Your task to perform on an android device: Empty the shopping cart on bestbuy. Add "corsair k70" to the cart on bestbuy Image 0: 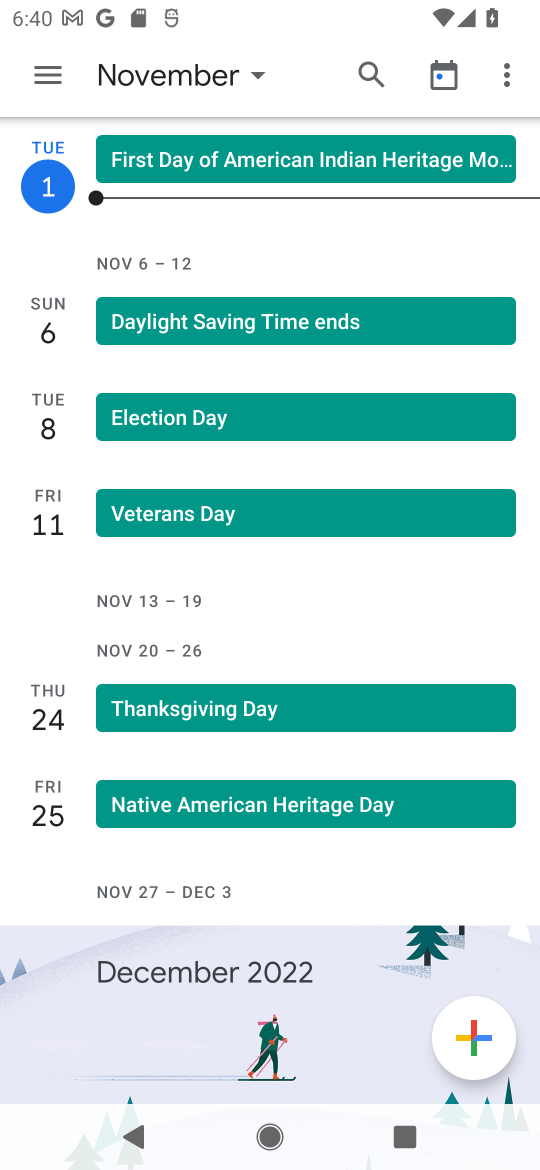
Step 0: press home button
Your task to perform on an android device: Empty the shopping cart on bestbuy. Add "corsair k70" to the cart on bestbuy Image 1: 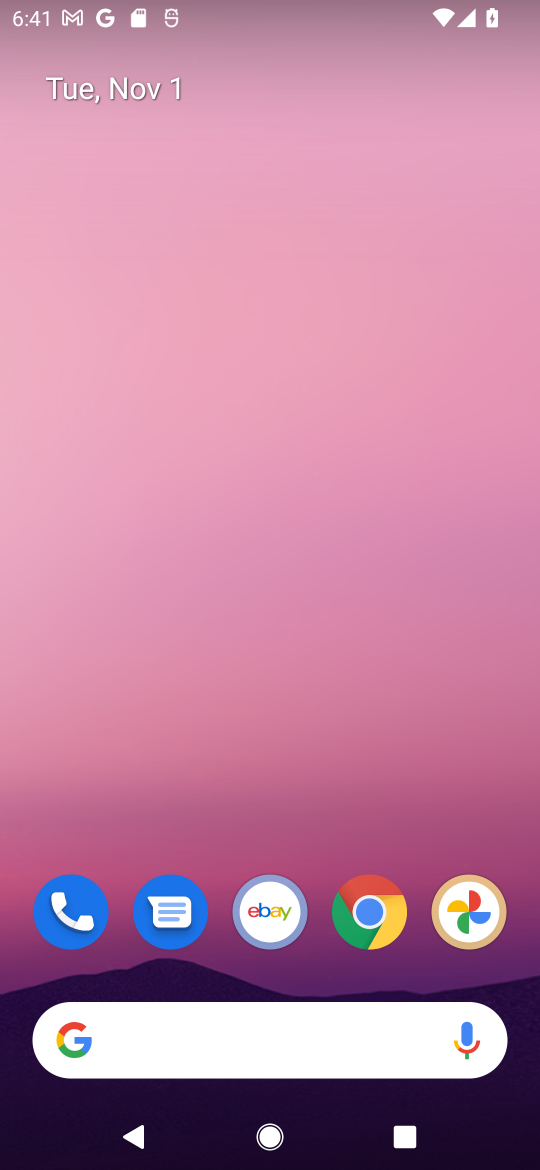
Step 1: click (58, 1041)
Your task to perform on an android device: Empty the shopping cart on bestbuy. Add "corsair k70" to the cart on bestbuy Image 2: 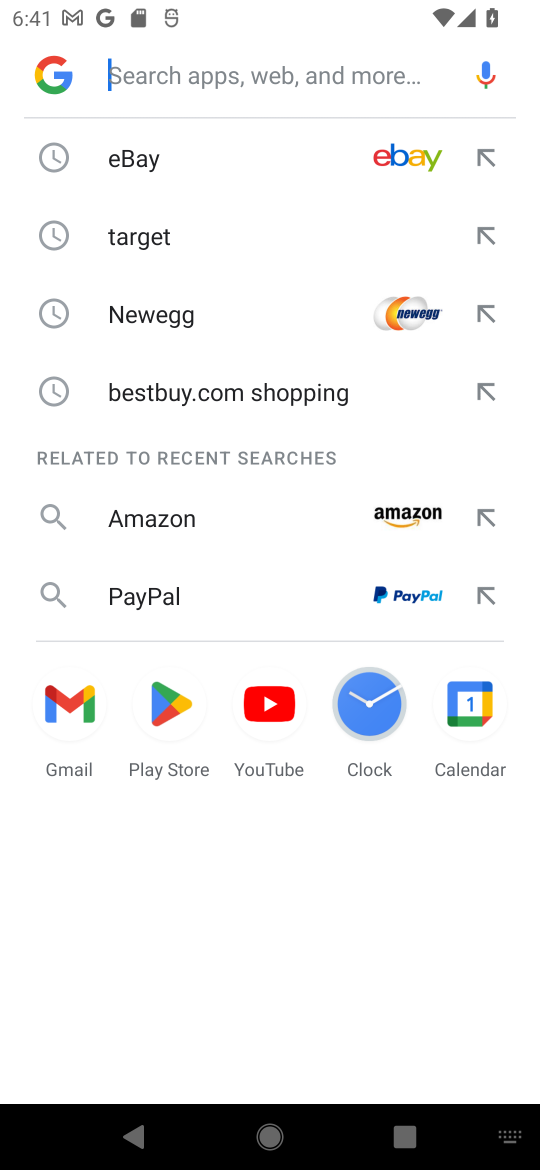
Step 2: click (303, 77)
Your task to perform on an android device: Empty the shopping cart on bestbuy. Add "corsair k70" to the cart on bestbuy Image 3: 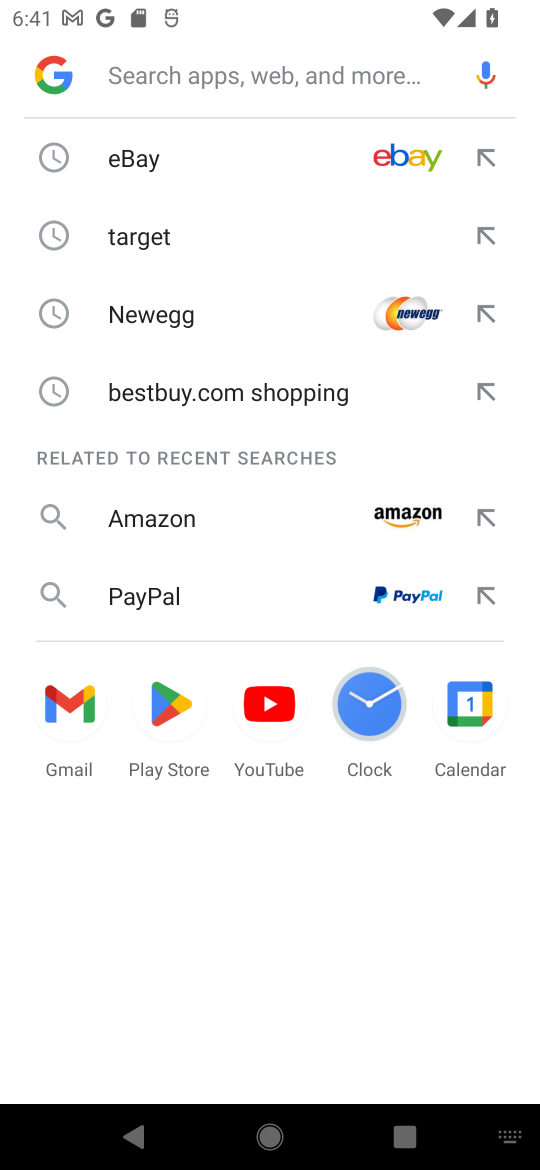
Step 3: type "bestbuy.com"
Your task to perform on an android device: Empty the shopping cart on bestbuy. Add "corsair k70" to the cart on bestbuy Image 4: 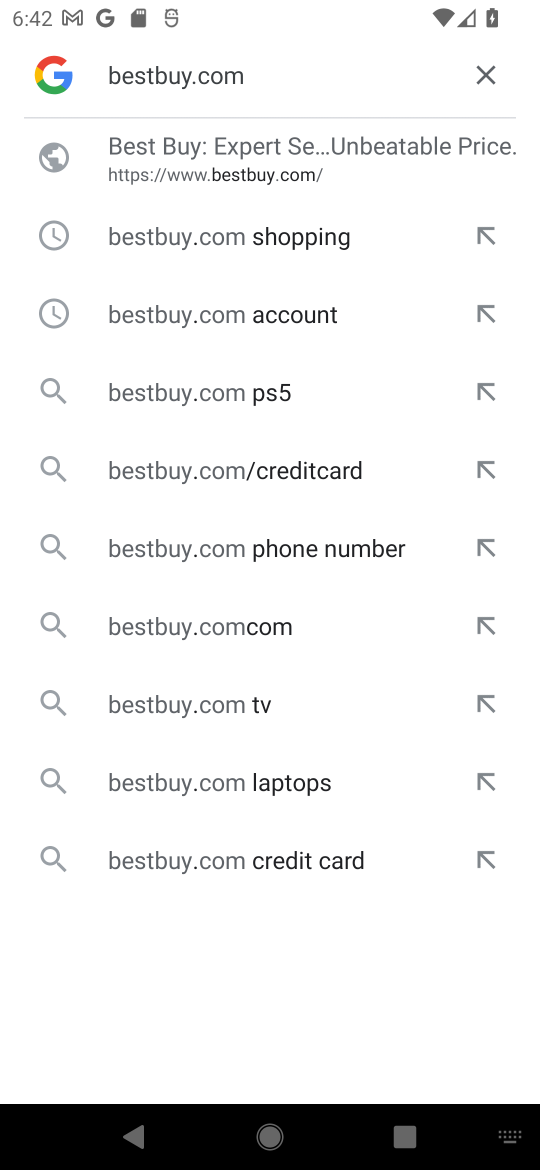
Step 4: click (325, 152)
Your task to perform on an android device: Empty the shopping cart on bestbuy. Add "corsair k70" to the cart on bestbuy Image 5: 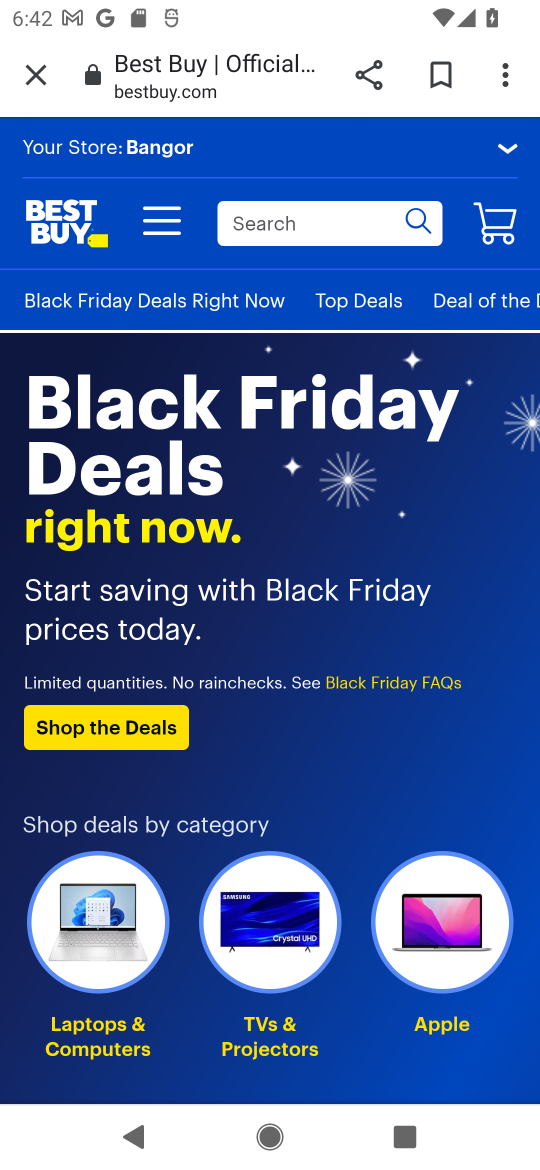
Step 5: click (324, 220)
Your task to perform on an android device: Empty the shopping cart on bestbuy. Add "corsair k70" to the cart on bestbuy Image 6: 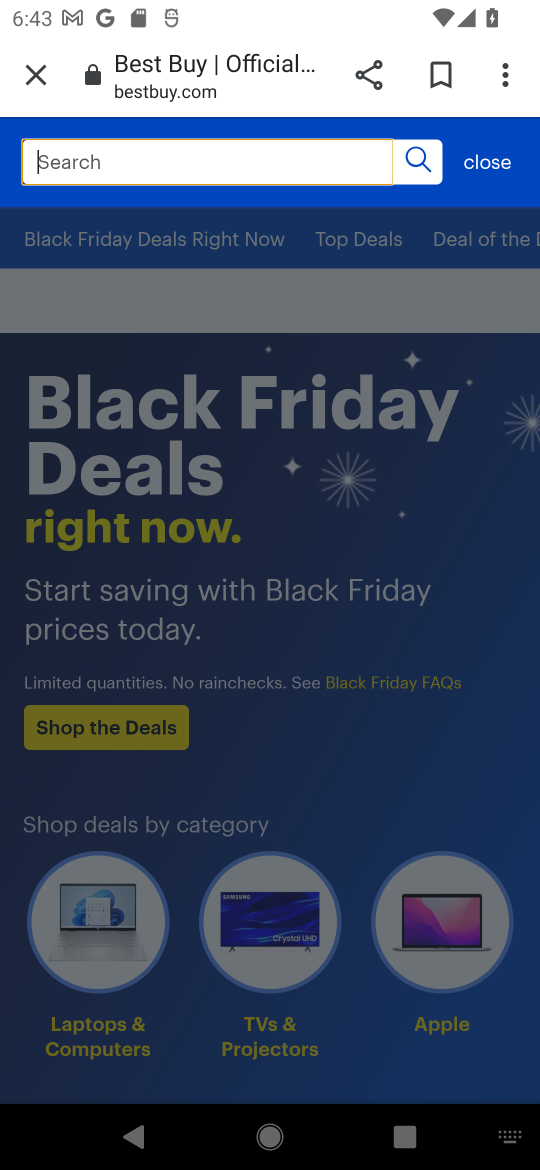
Step 6: click (211, 147)
Your task to perform on an android device: Empty the shopping cart on bestbuy. Add "corsair k70" to the cart on bestbuy Image 7: 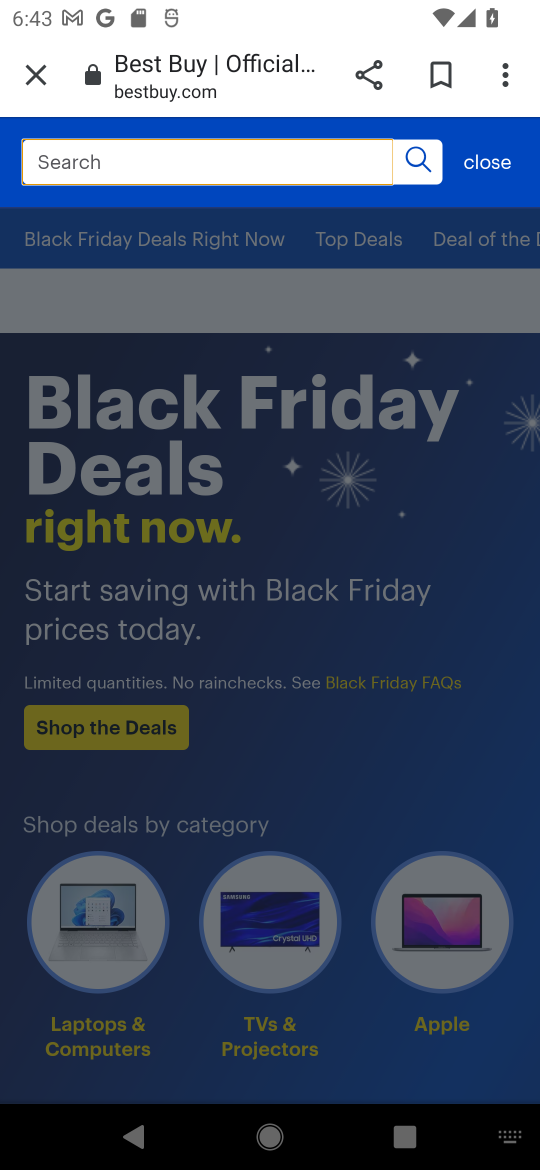
Step 7: type "corsair k70"
Your task to perform on an android device: Empty the shopping cart on bestbuy. Add "corsair k70" to the cart on bestbuy Image 8: 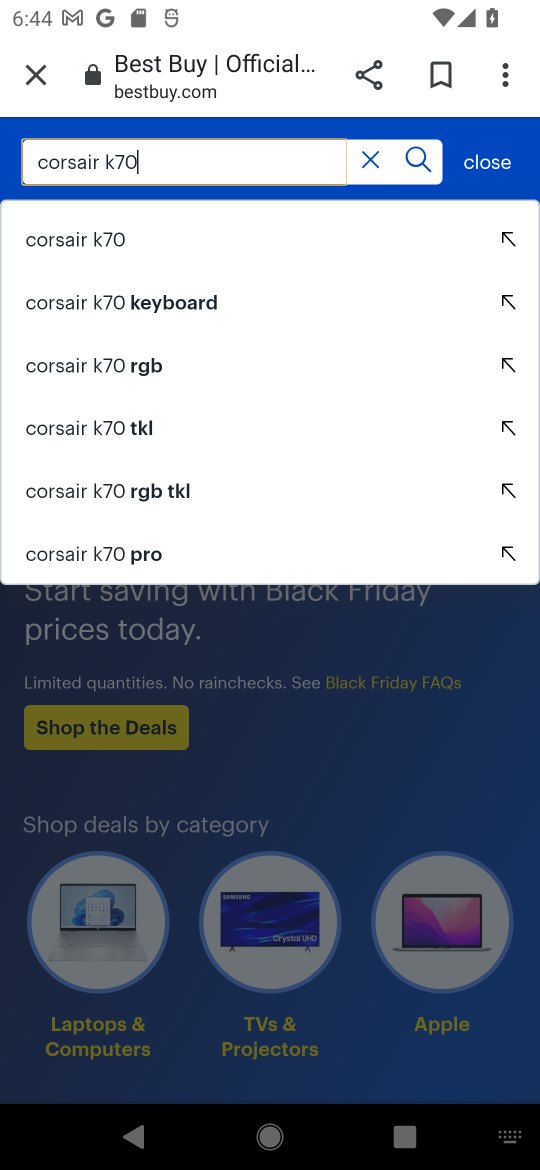
Step 8: click (79, 246)
Your task to perform on an android device: Empty the shopping cart on bestbuy. Add "corsair k70" to the cart on bestbuy Image 9: 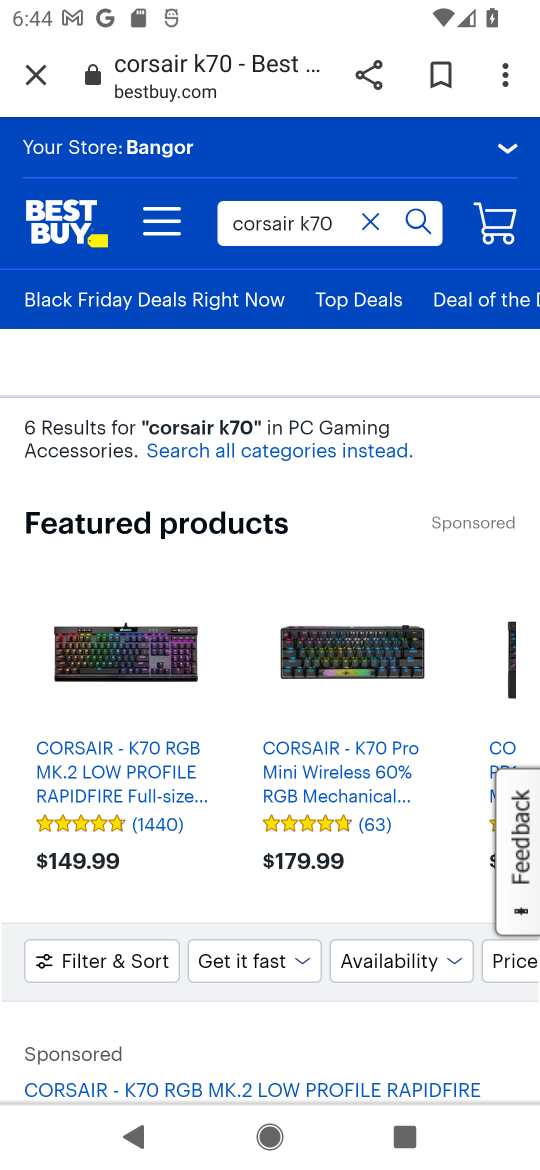
Step 9: drag from (193, 964) to (274, 181)
Your task to perform on an android device: Empty the shopping cart on bestbuy. Add "corsair k70" to the cart on bestbuy Image 10: 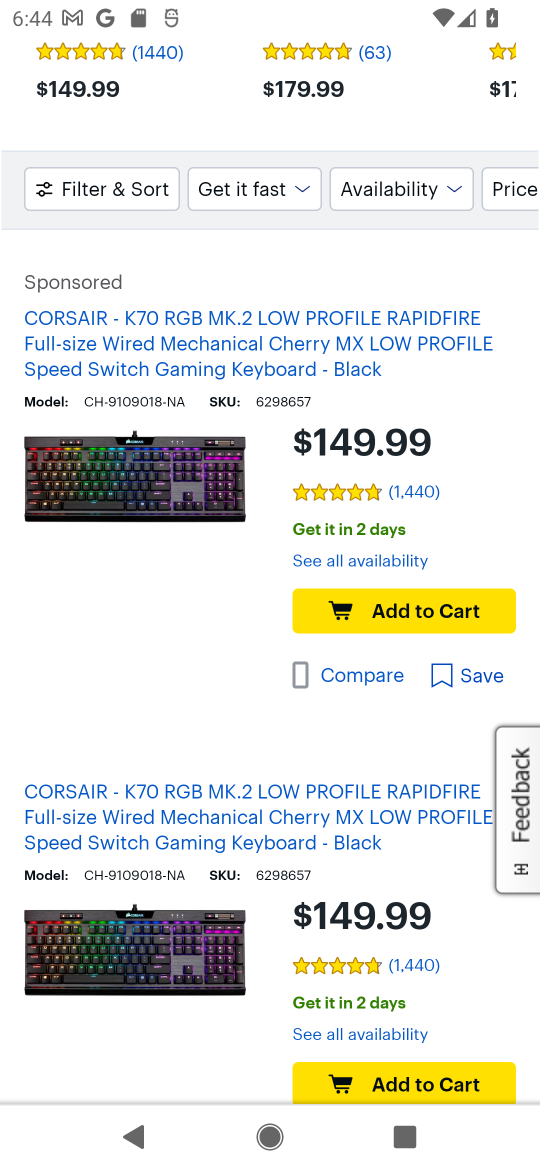
Step 10: click (420, 614)
Your task to perform on an android device: Empty the shopping cart on bestbuy. Add "corsair k70" to the cart on bestbuy Image 11: 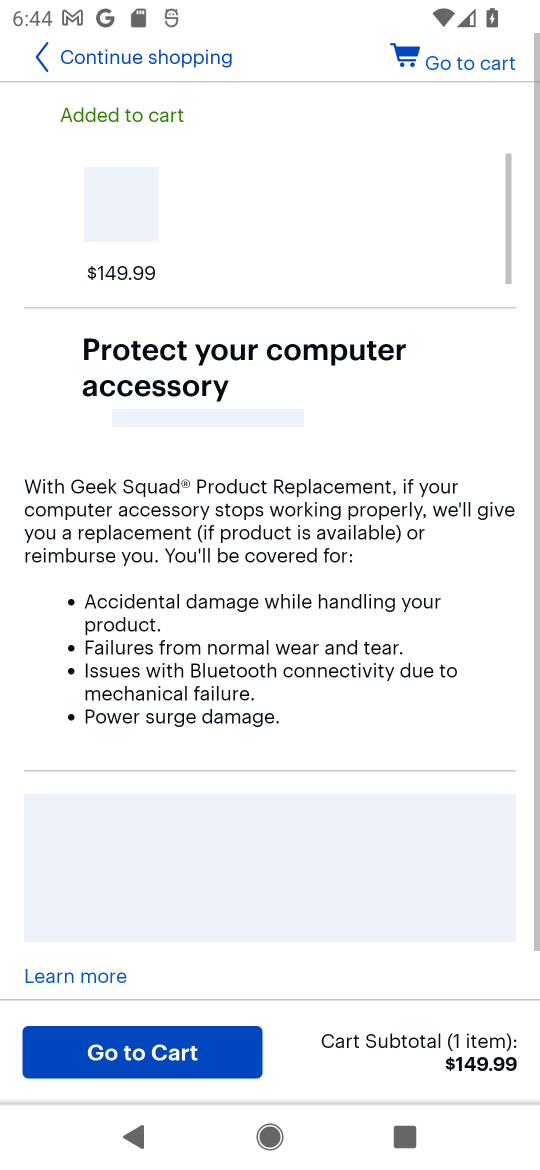
Step 11: task complete